Your task to perform on an android device: toggle pop-ups in chrome Image 0: 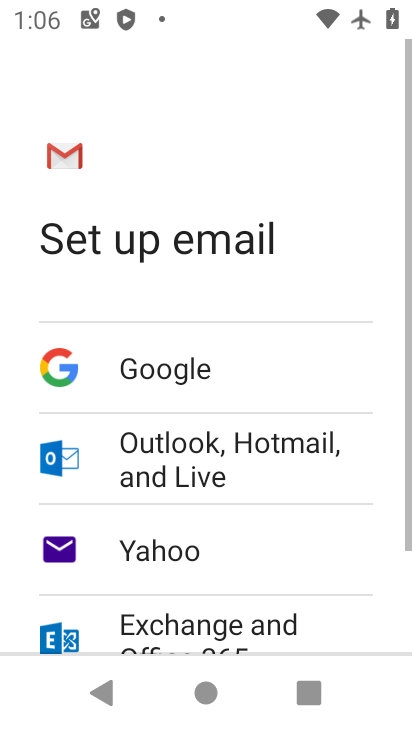
Step 0: press home button
Your task to perform on an android device: toggle pop-ups in chrome Image 1: 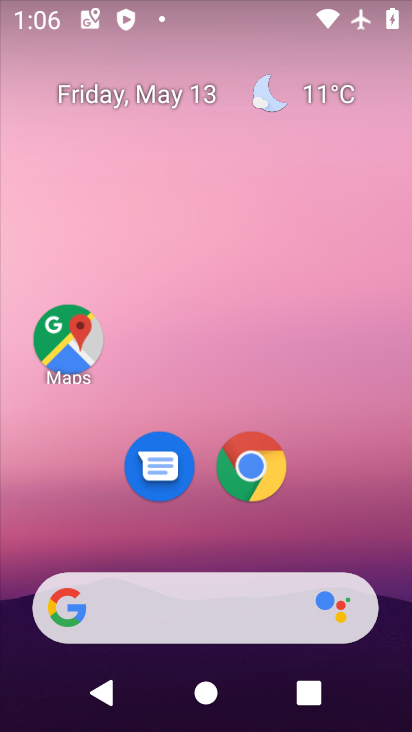
Step 1: click (254, 468)
Your task to perform on an android device: toggle pop-ups in chrome Image 2: 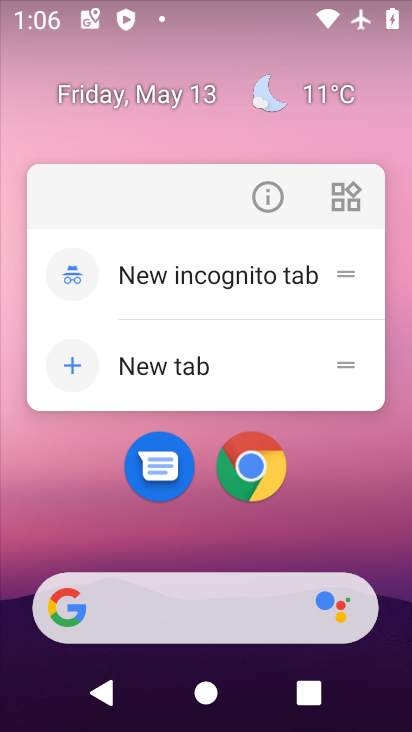
Step 2: click (256, 468)
Your task to perform on an android device: toggle pop-ups in chrome Image 3: 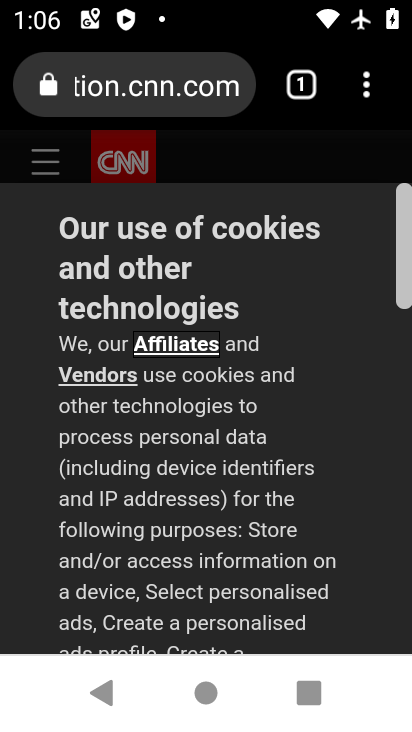
Step 3: click (366, 80)
Your task to perform on an android device: toggle pop-ups in chrome Image 4: 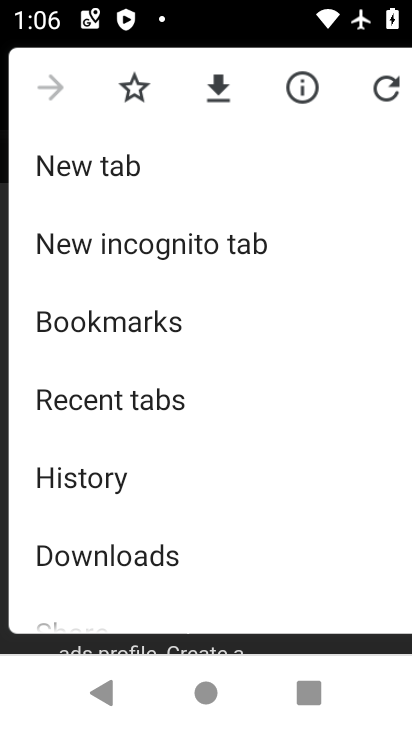
Step 4: drag from (157, 547) to (184, 160)
Your task to perform on an android device: toggle pop-ups in chrome Image 5: 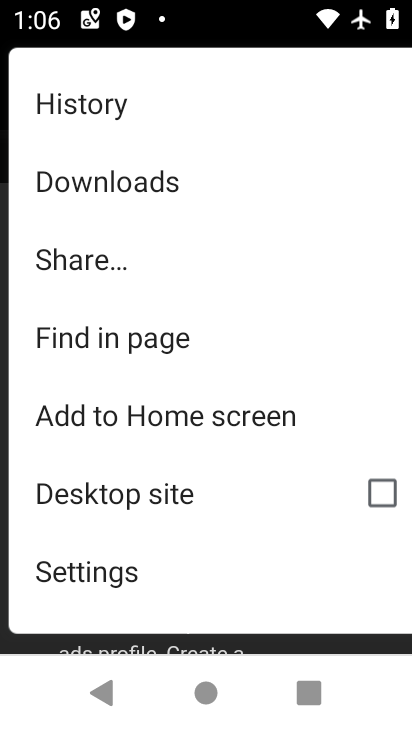
Step 5: click (174, 558)
Your task to perform on an android device: toggle pop-ups in chrome Image 6: 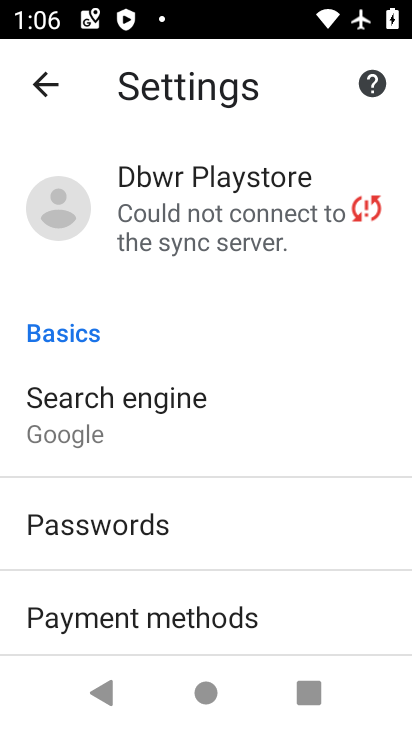
Step 6: drag from (277, 602) to (278, 228)
Your task to perform on an android device: toggle pop-ups in chrome Image 7: 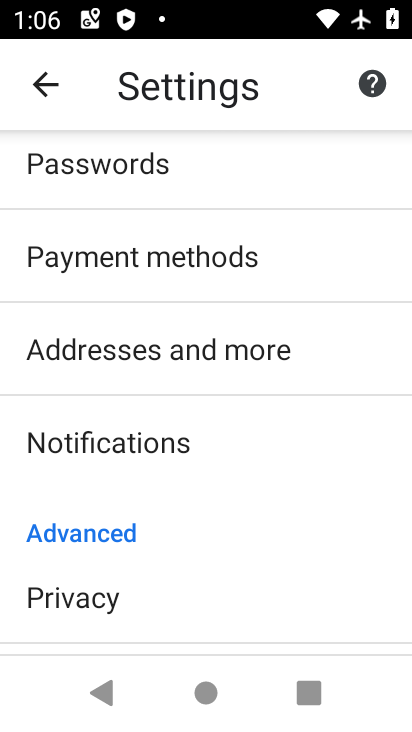
Step 7: drag from (219, 542) to (247, 196)
Your task to perform on an android device: toggle pop-ups in chrome Image 8: 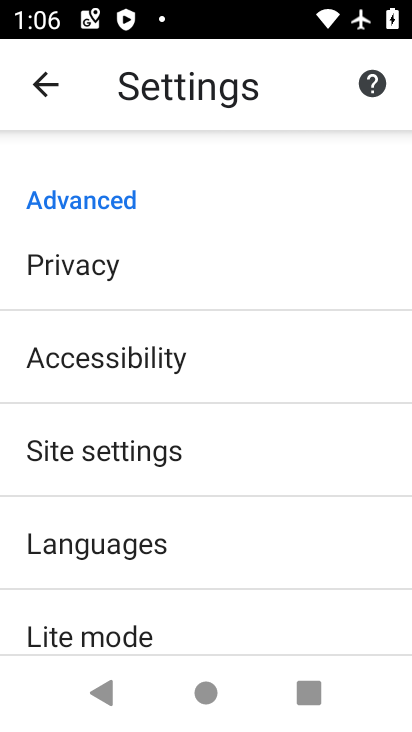
Step 8: click (168, 435)
Your task to perform on an android device: toggle pop-ups in chrome Image 9: 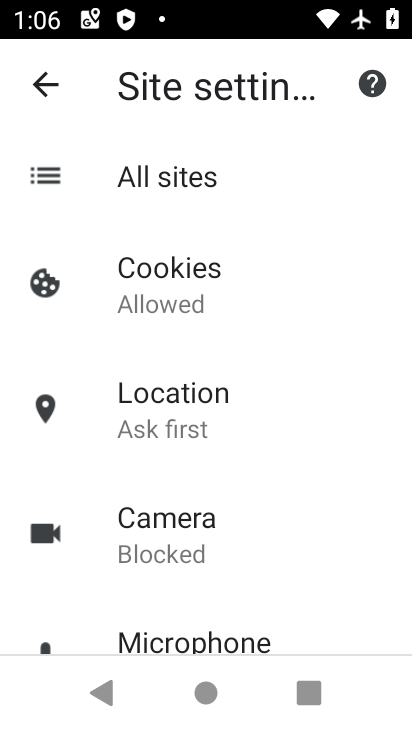
Step 9: drag from (203, 552) to (232, 260)
Your task to perform on an android device: toggle pop-ups in chrome Image 10: 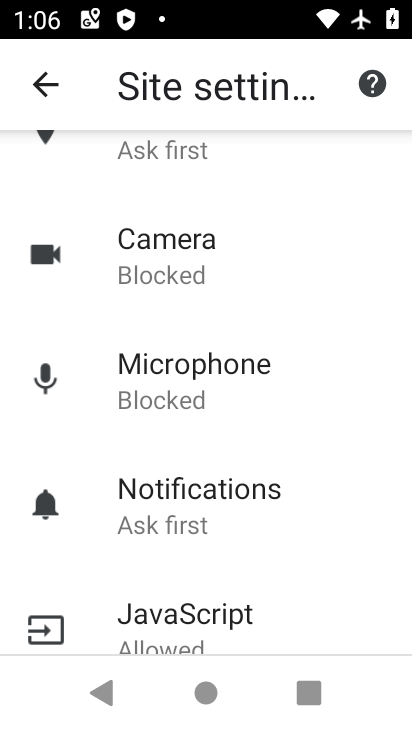
Step 10: drag from (212, 593) to (240, 270)
Your task to perform on an android device: toggle pop-ups in chrome Image 11: 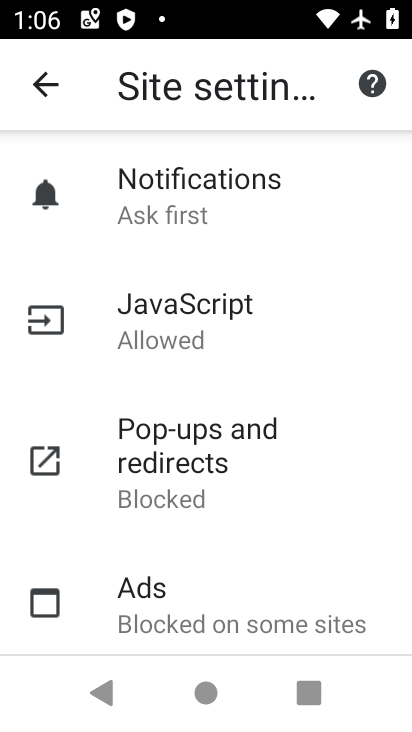
Step 11: click (220, 464)
Your task to perform on an android device: toggle pop-ups in chrome Image 12: 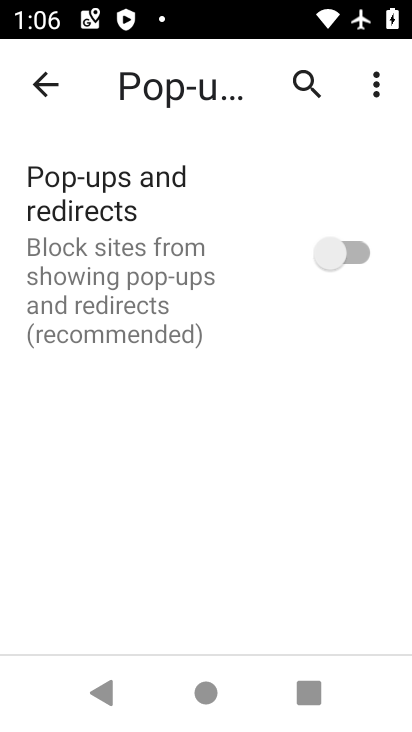
Step 12: click (361, 253)
Your task to perform on an android device: toggle pop-ups in chrome Image 13: 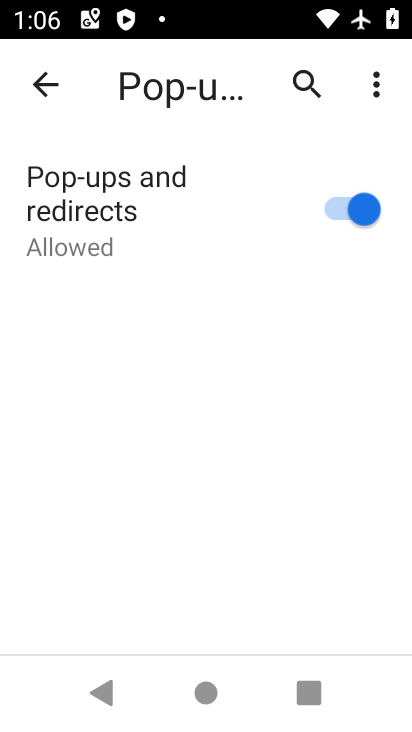
Step 13: task complete